Your task to perform on an android device: delete the emails in spam in the gmail app Image 0: 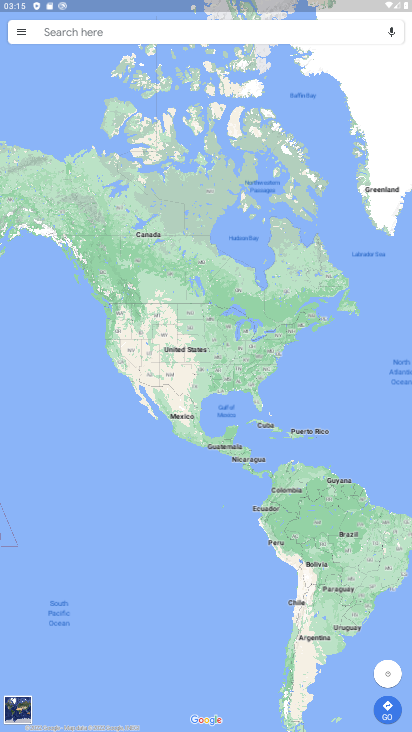
Step 0: press home button
Your task to perform on an android device: delete the emails in spam in the gmail app Image 1: 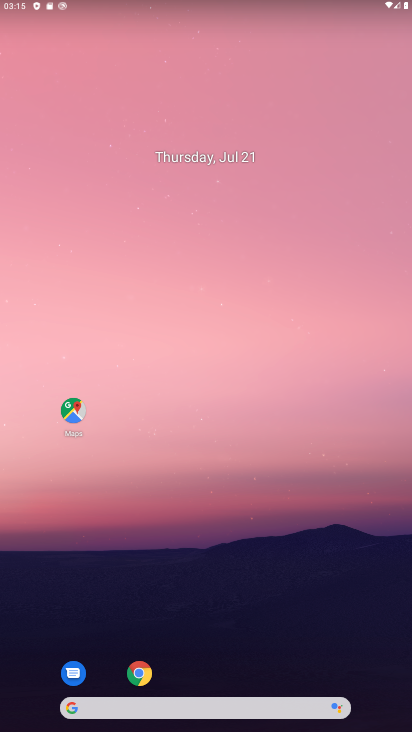
Step 1: drag from (286, 546) to (181, 13)
Your task to perform on an android device: delete the emails in spam in the gmail app Image 2: 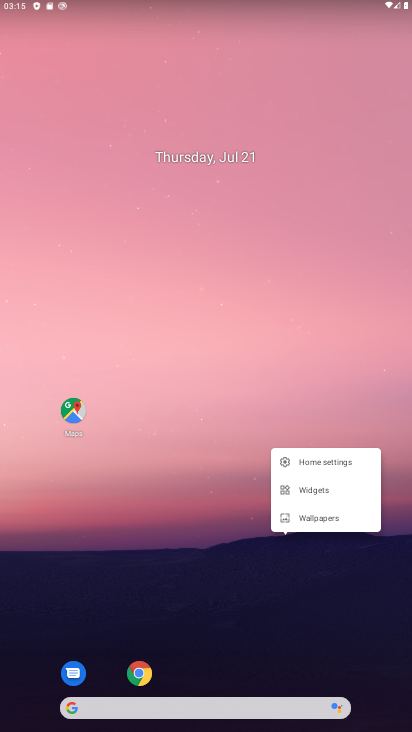
Step 2: click (300, 641)
Your task to perform on an android device: delete the emails in spam in the gmail app Image 3: 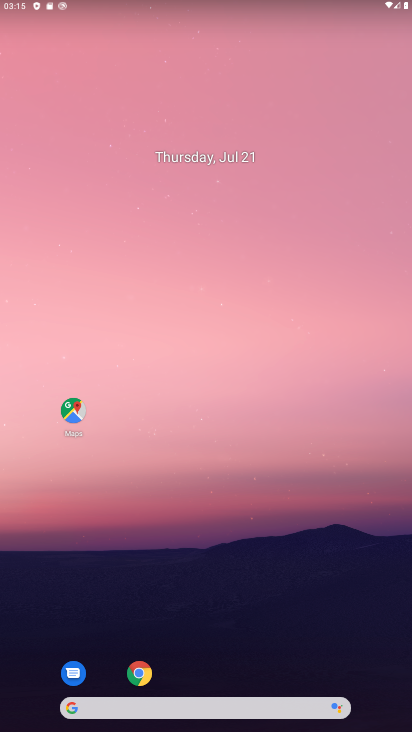
Step 3: drag from (364, 710) to (208, 161)
Your task to perform on an android device: delete the emails in spam in the gmail app Image 4: 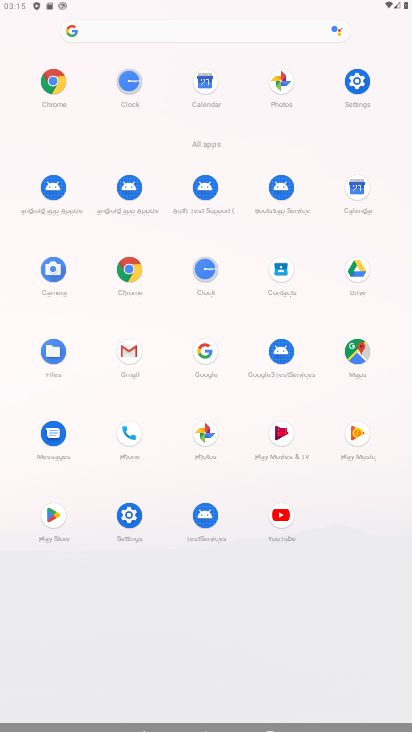
Step 4: click (122, 364)
Your task to perform on an android device: delete the emails in spam in the gmail app Image 5: 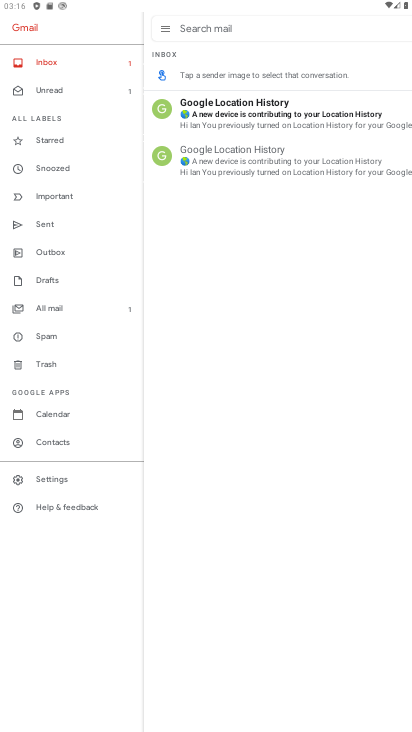
Step 5: click (51, 341)
Your task to perform on an android device: delete the emails in spam in the gmail app Image 6: 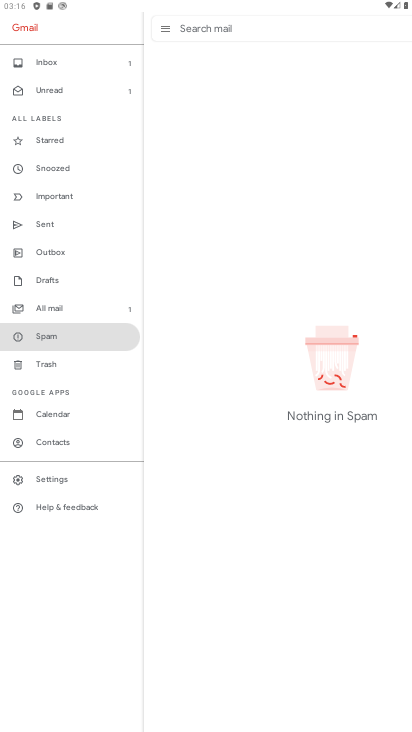
Step 6: task complete